Your task to perform on an android device: install app "AliExpress" Image 0: 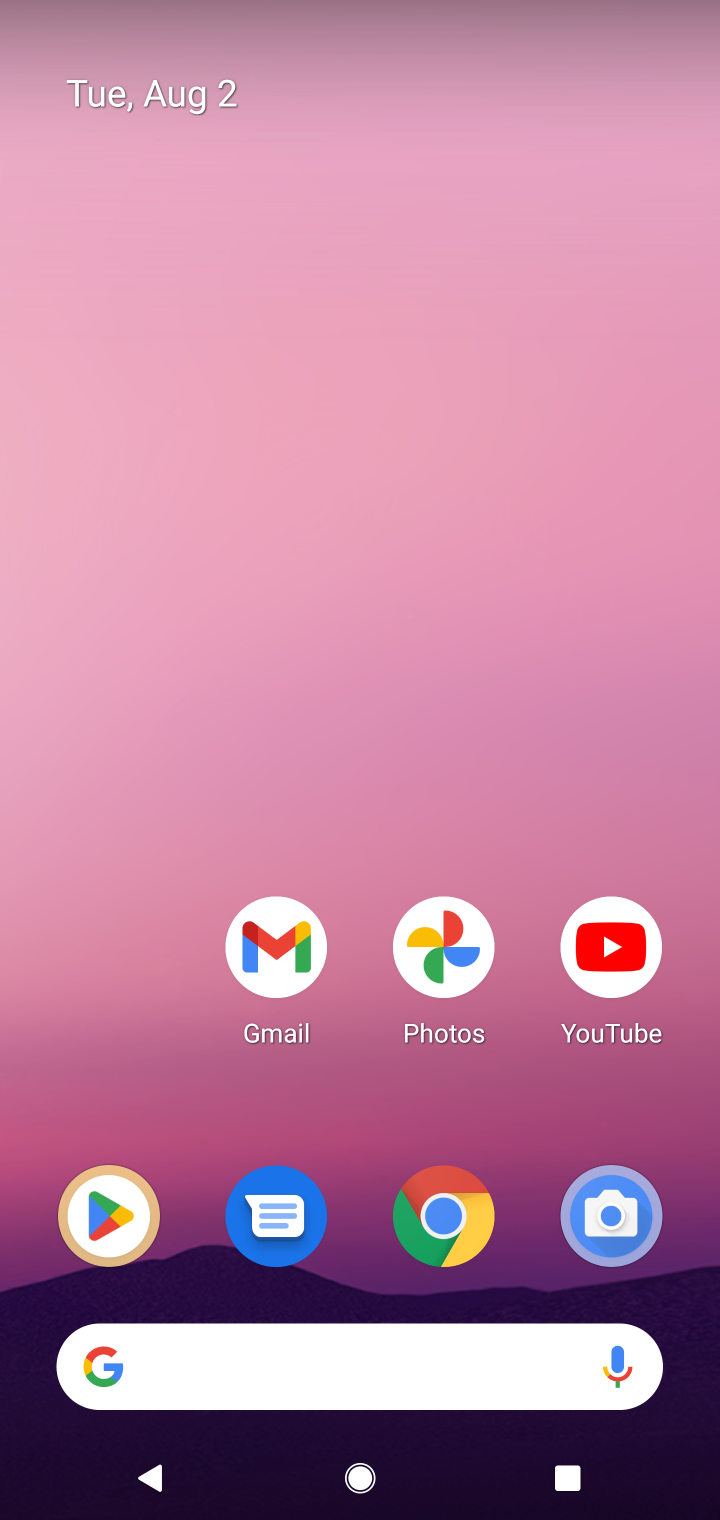
Step 0: click (109, 1226)
Your task to perform on an android device: install app "AliExpress" Image 1: 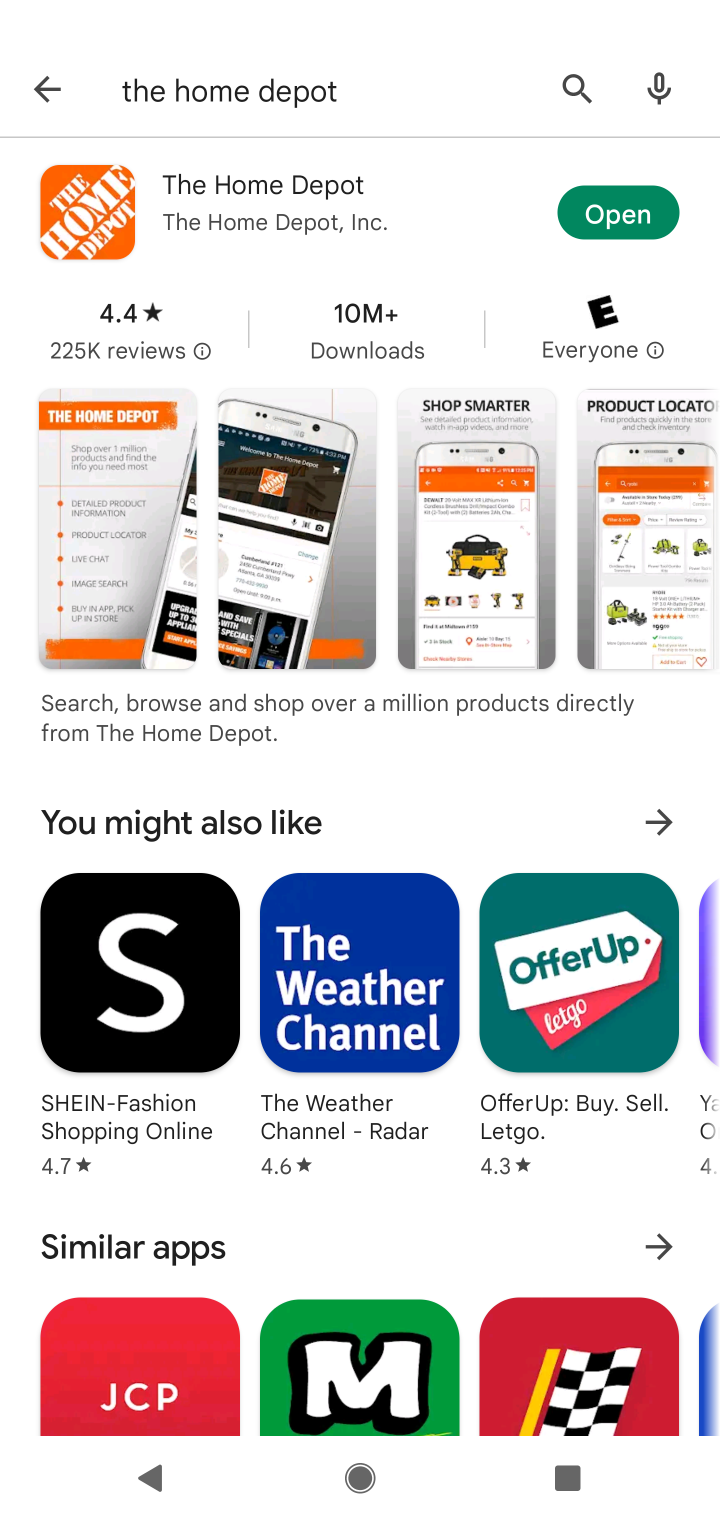
Step 1: click (558, 85)
Your task to perform on an android device: install app "AliExpress" Image 2: 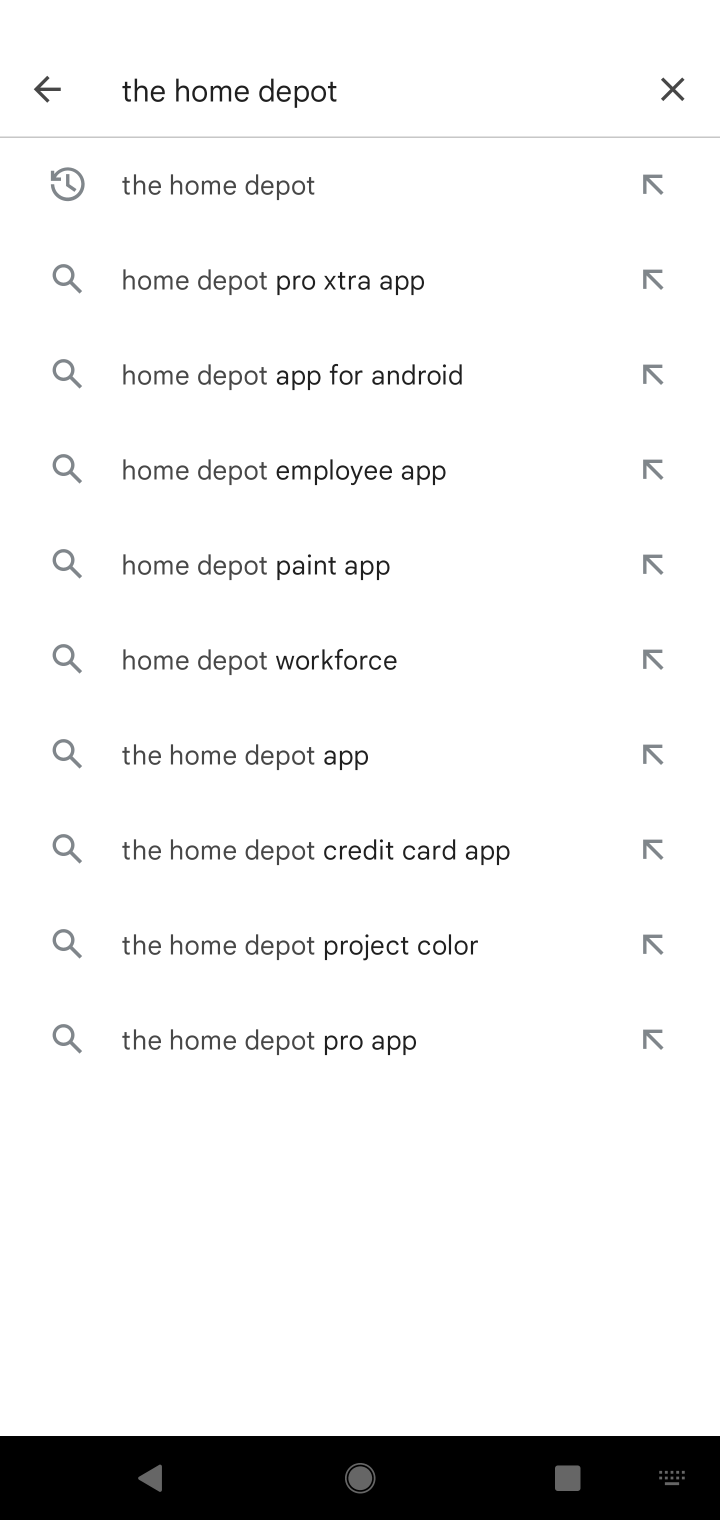
Step 2: click (663, 87)
Your task to perform on an android device: install app "AliExpress" Image 3: 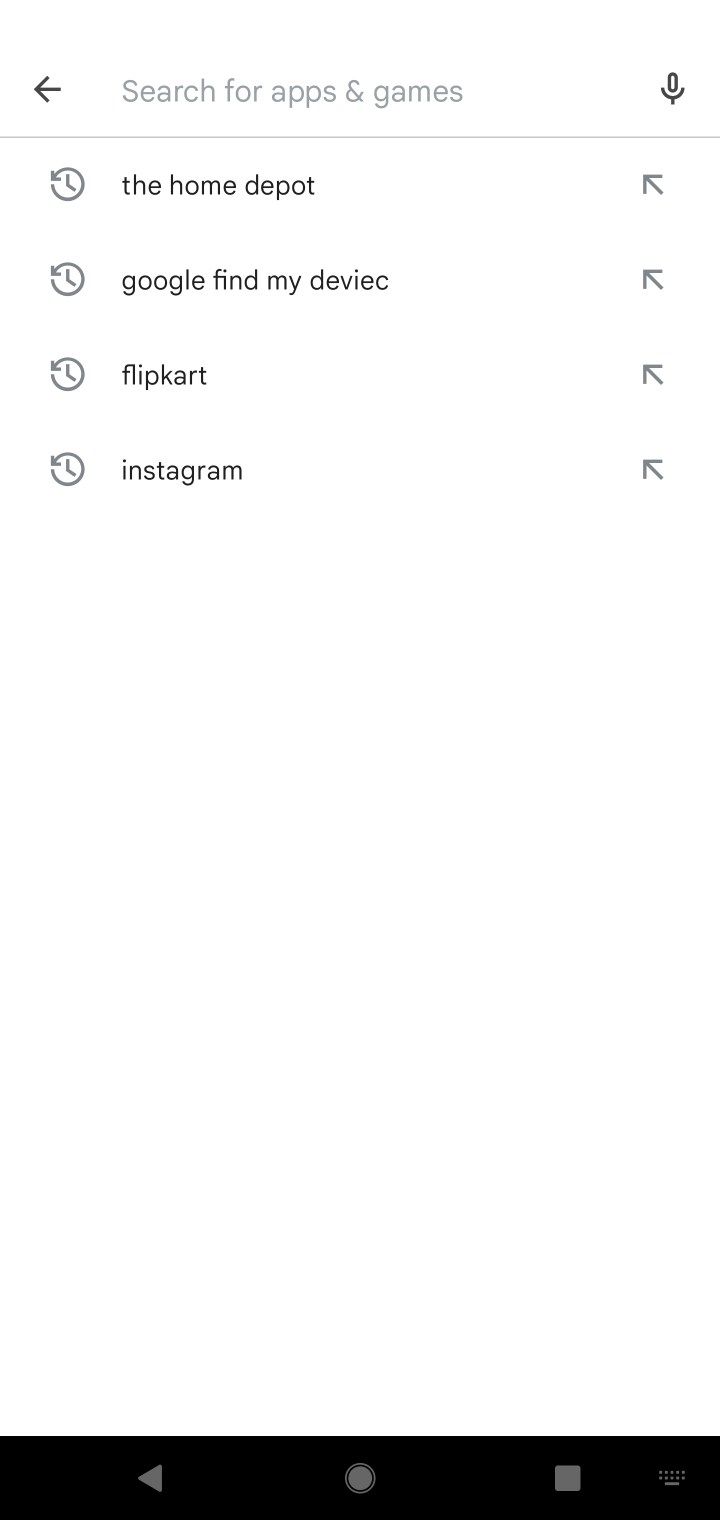
Step 3: type "aliexpress"
Your task to perform on an android device: install app "AliExpress" Image 4: 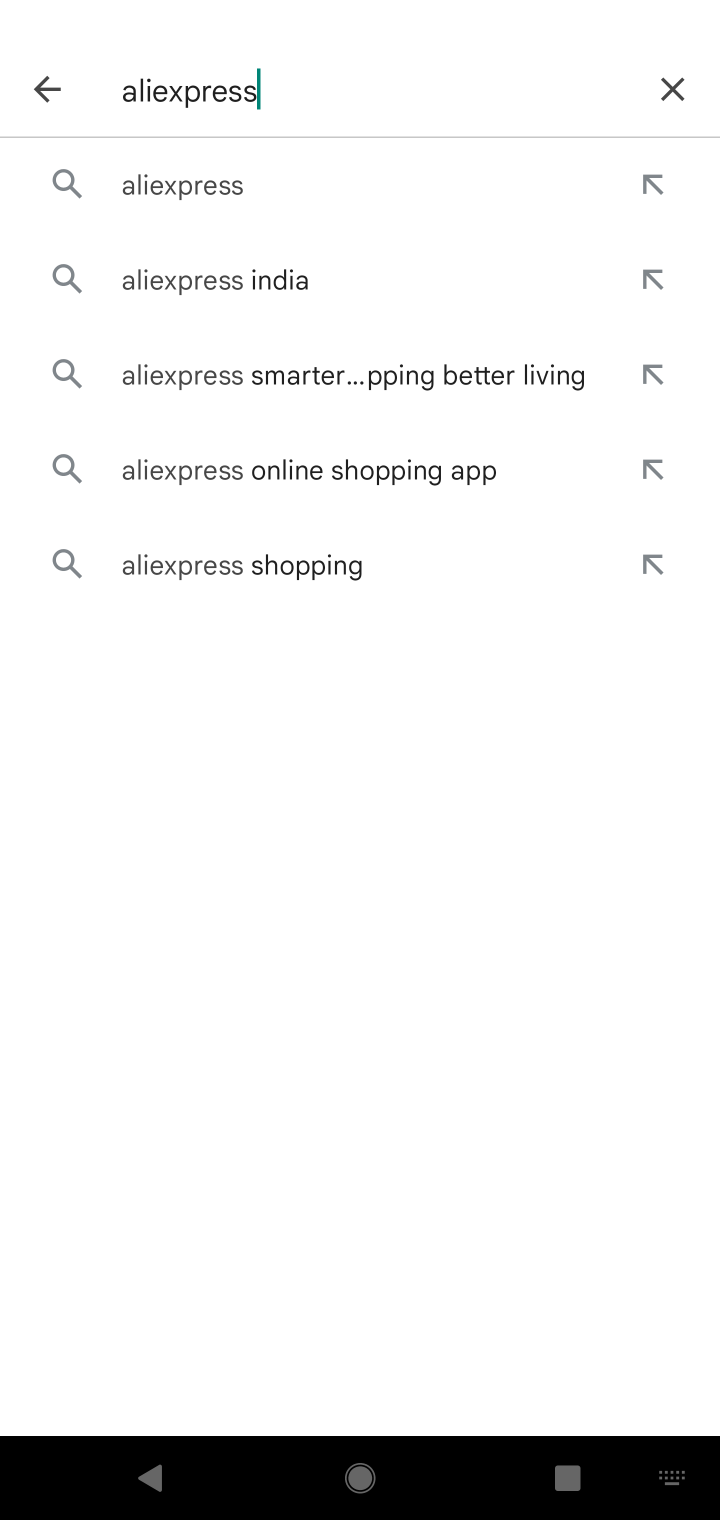
Step 4: click (230, 187)
Your task to perform on an android device: install app "AliExpress" Image 5: 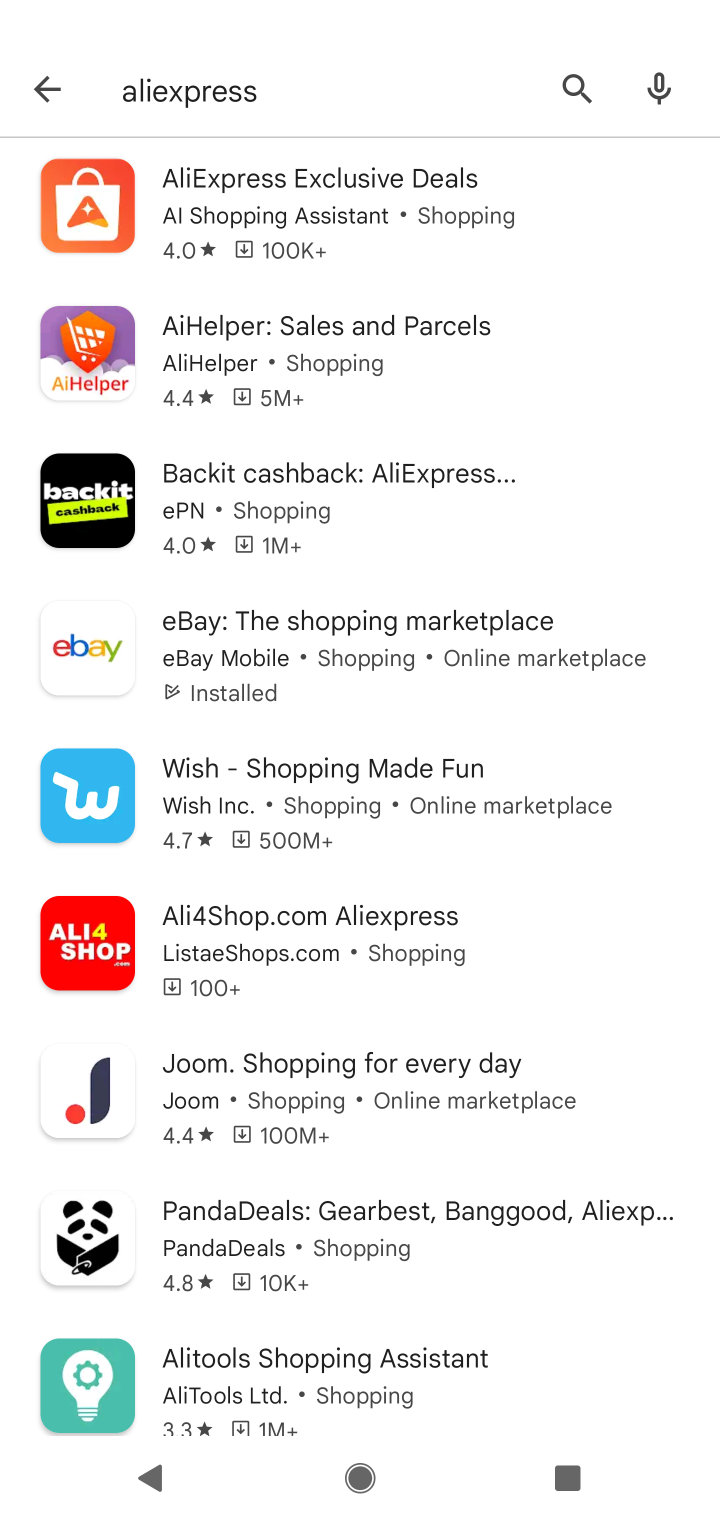
Step 5: click (394, 217)
Your task to perform on an android device: install app "AliExpress" Image 6: 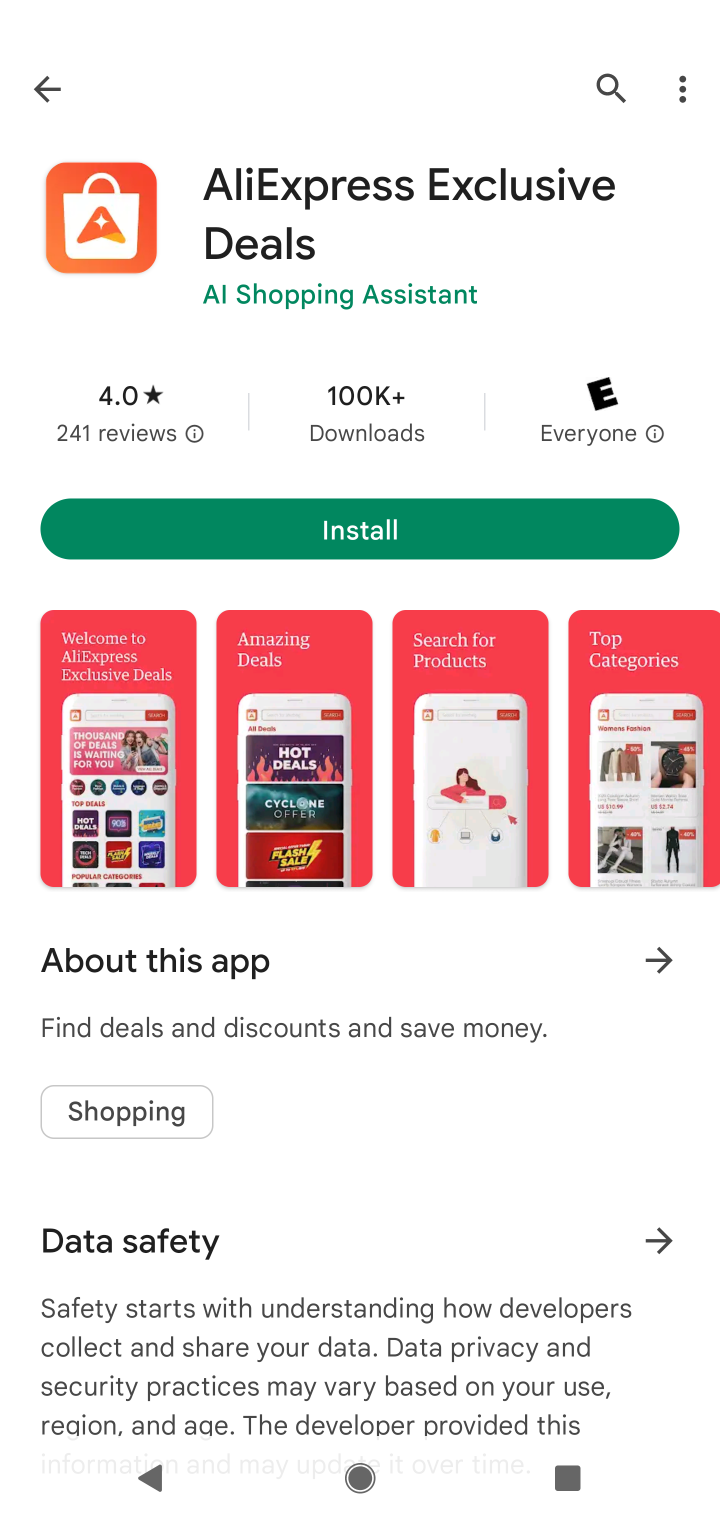
Step 6: click (433, 552)
Your task to perform on an android device: install app "AliExpress" Image 7: 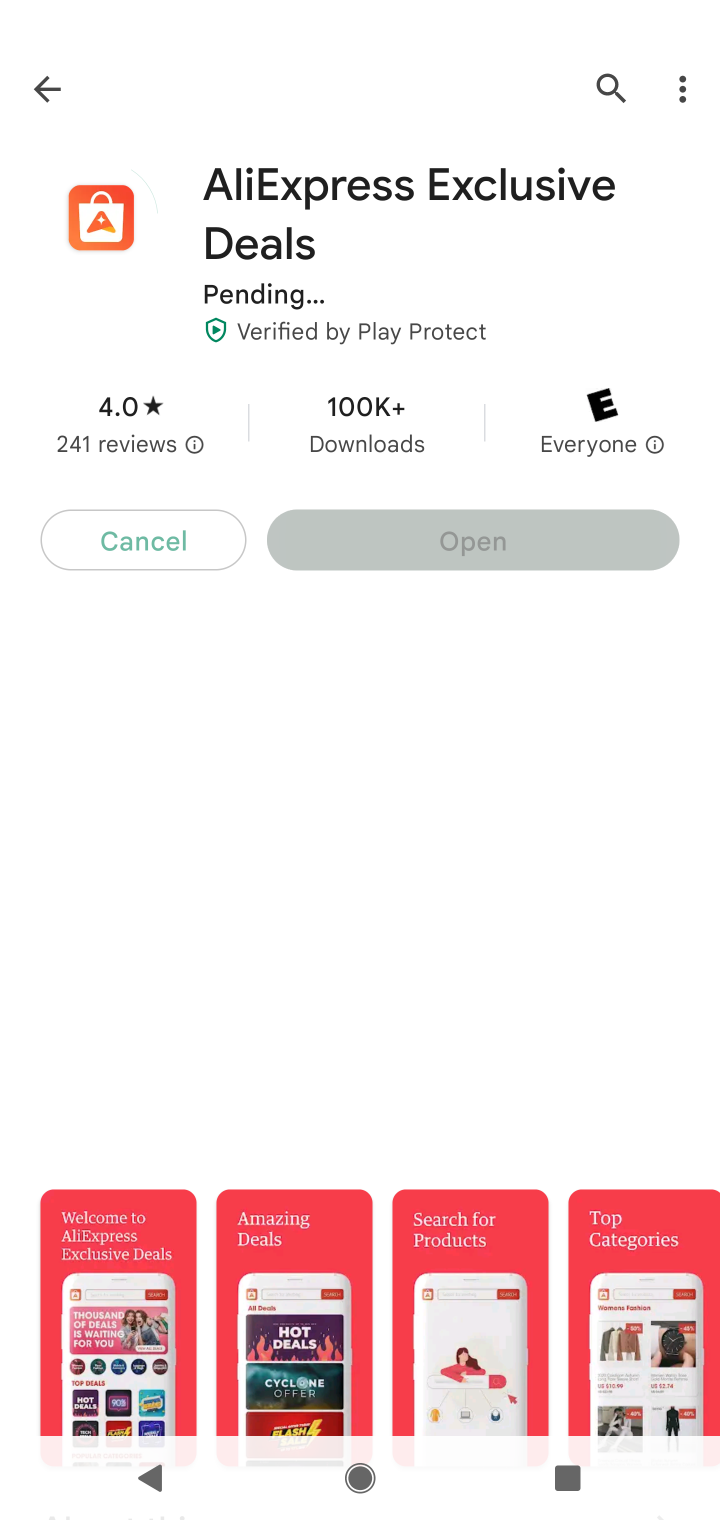
Step 7: task complete